Your task to perform on an android device: Open the map Image 0: 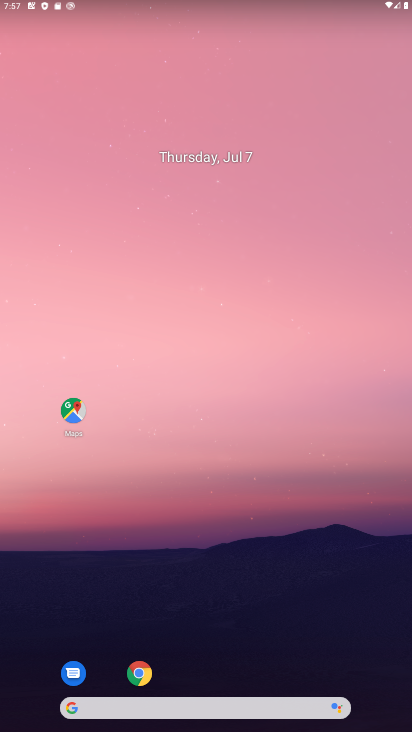
Step 0: click (166, 635)
Your task to perform on an android device: Open the map Image 1: 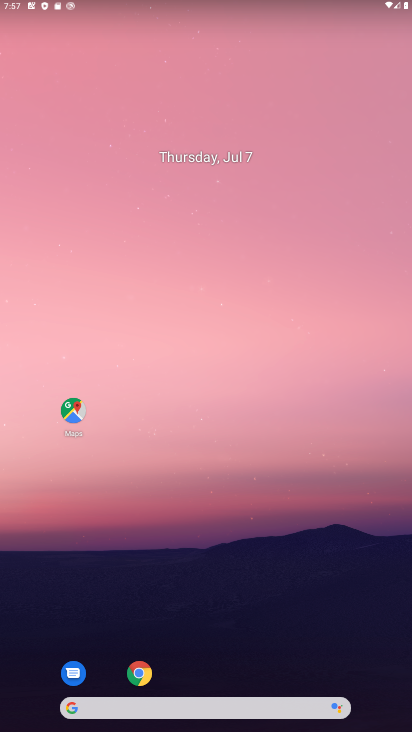
Step 1: click (71, 427)
Your task to perform on an android device: Open the map Image 2: 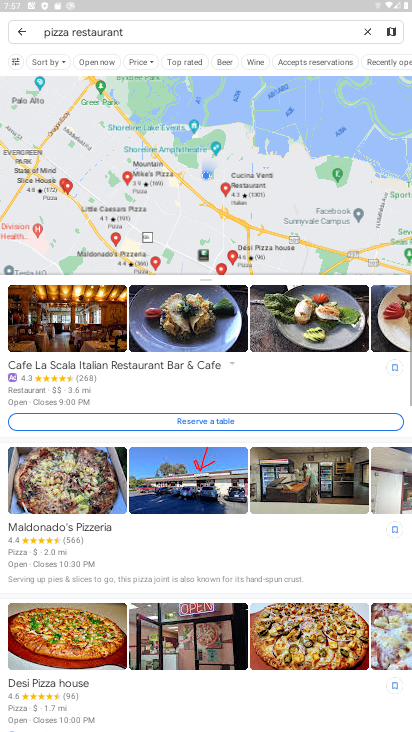
Step 2: task complete